Your task to perform on an android device: Open the map Image 0: 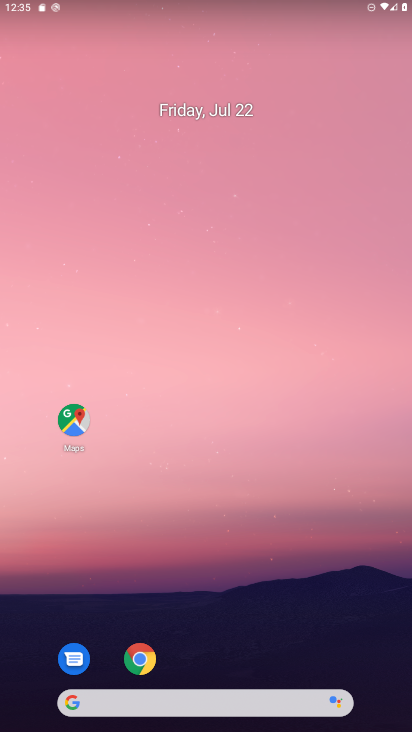
Step 0: click (72, 415)
Your task to perform on an android device: Open the map Image 1: 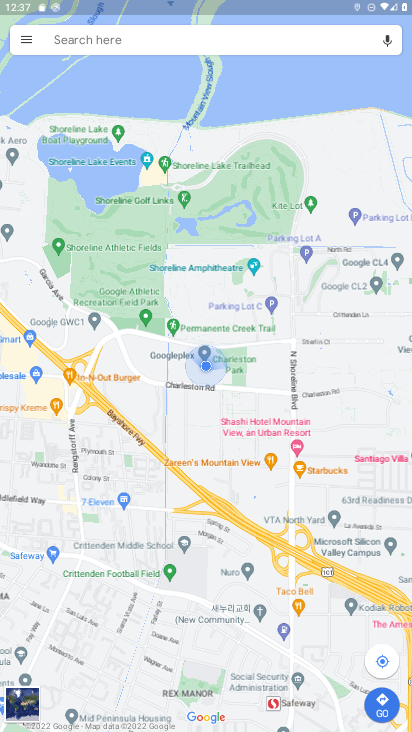
Step 1: task complete